Your task to perform on an android device: turn pop-ups on in chrome Image 0: 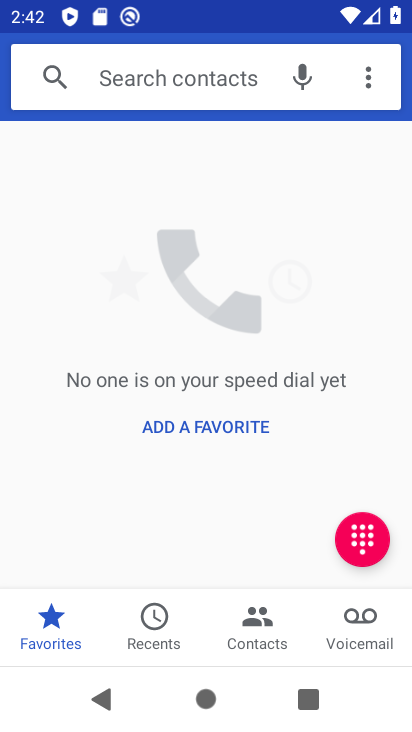
Step 0: press back button
Your task to perform on an android device: turn pop-ups on in chrome Image 1: 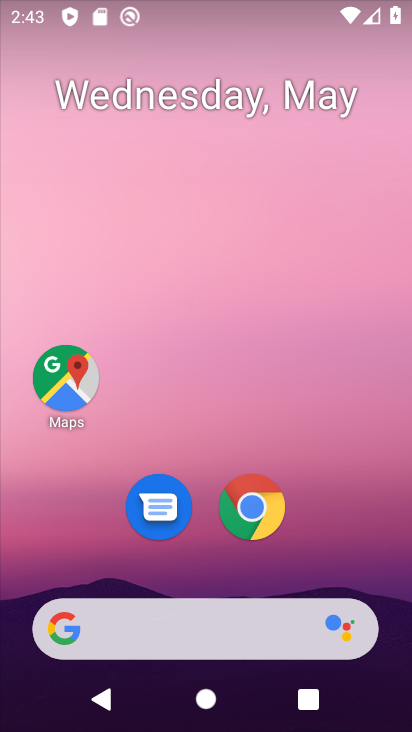
Step 1: drag from (346, 531) to (251, 18)
Your task to perform on an android device: turn pop-ups on in chrome Image 2: 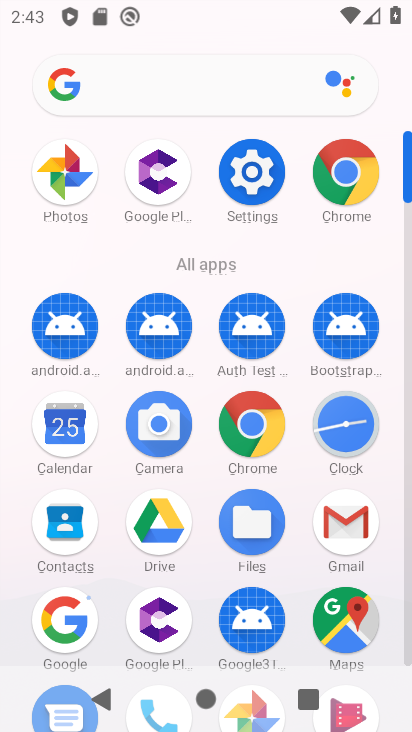
Step 2: drag from (12, 630) to (15, 301)
Your task to perform on an android device: turn pop-ups on in chrome Image 3: 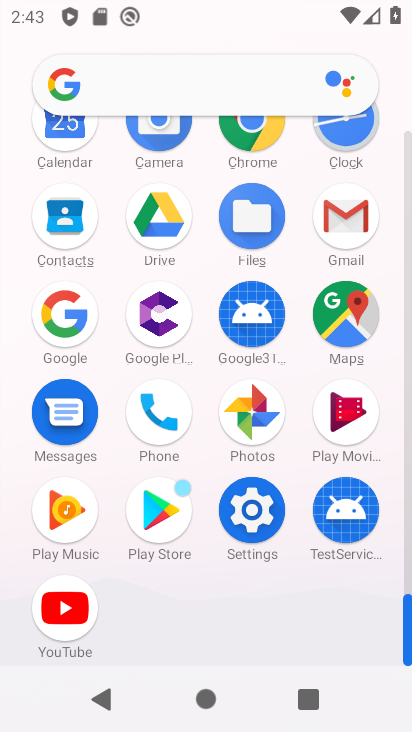
Step 3: click (249, 121)
Your task to perform on an android device: turn pop-ups on in chrome Image 4: 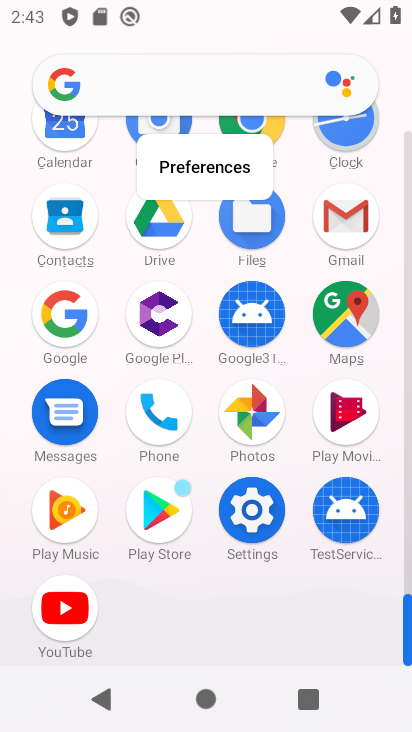
Step 4: drag from (9, 212) to (7, 454)
Your task to perform on an android device: turn pop-ups on in chrome Image 5: 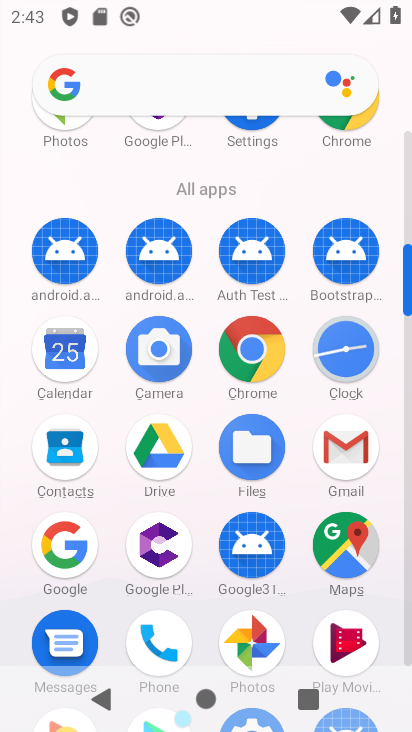
Step 5: click (252, 347)
Your task to perform on an android device: turn pop-ups on in chrome Image 6: 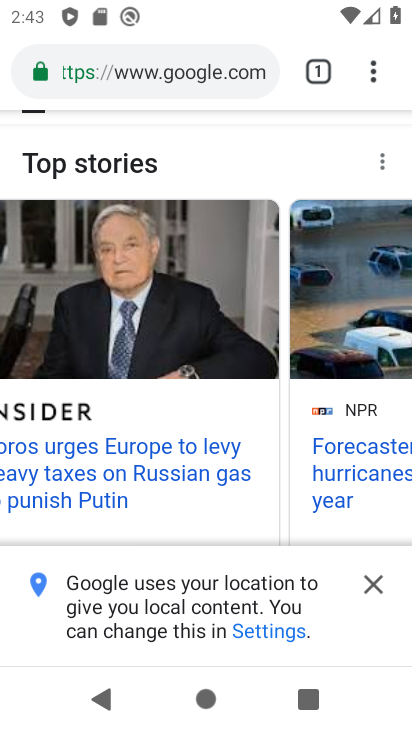
Step 6: drag from (372, 62) to (144, 493)
Your task to perform on an android device: turn pop-ups on in chrome Image 7: 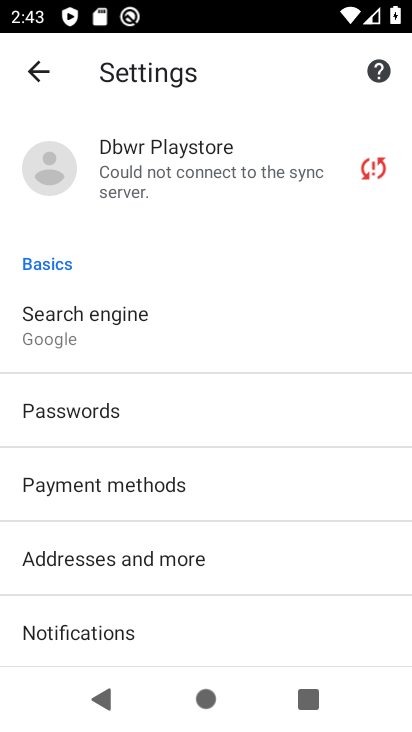
Step 7: drag from (274, 577) to (223, 139)
Your task to perform on an android device: turn pop-ups on in chrome Image 8: 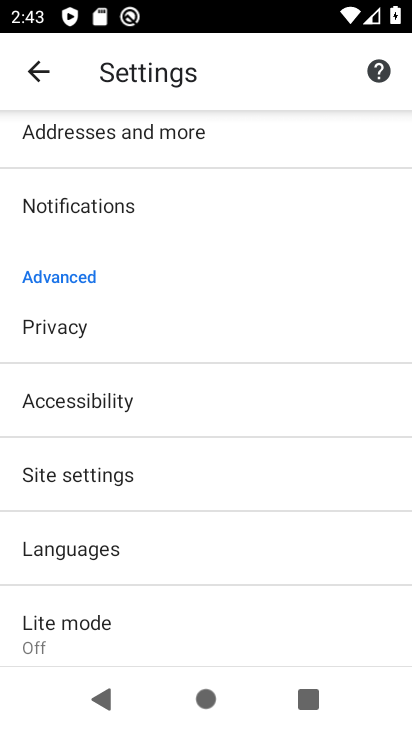
Step 8: drag from (259, 580) to (277, 171)
Your task to perform on an android device: turn pop-ups on in chrome Image 9: 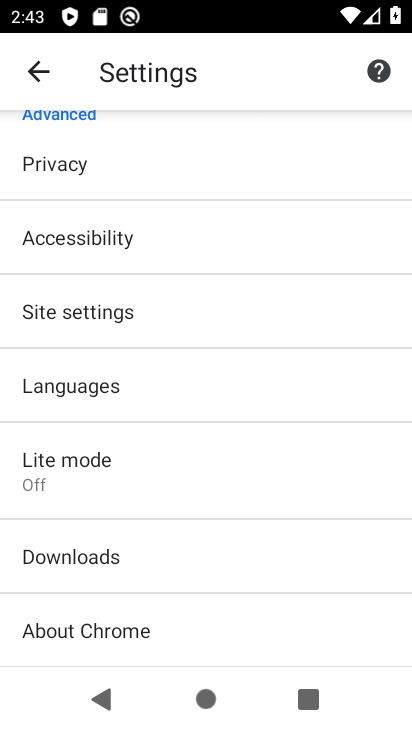
Step 9: click (105, 312)
Your task to perform on an android device: turn pop-ups on in chrome Image 10: 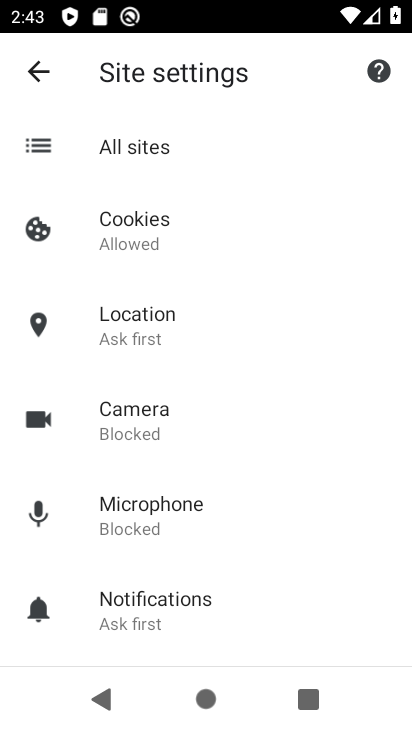
Step 10: drag from (236, 567) to (266, 206)
Your task to perform on an android device: turn pop-ups on in chrome Image 11: 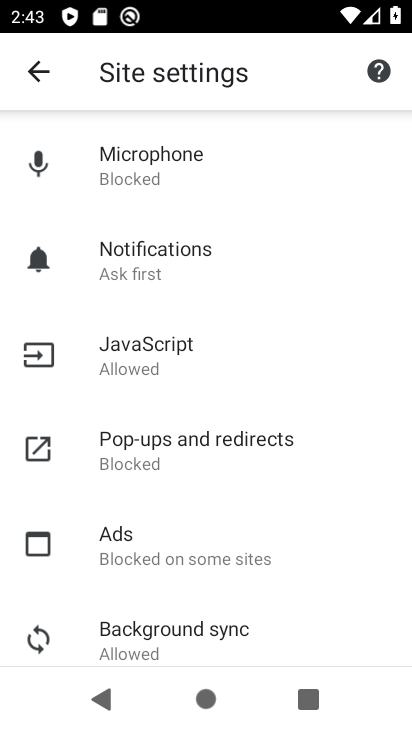
Step 11: click (184, 446)
Your task to perform on an android device: turn pop-ups on in chrome Image 12: 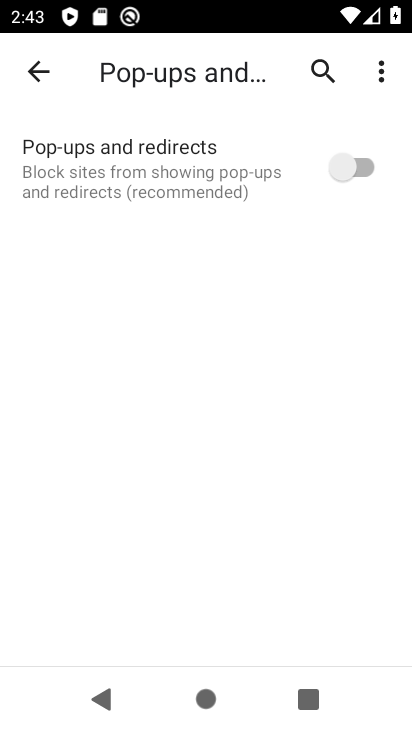
Step 12: click (349, 158)
Your task to perform on an android device: turn pop-ups on in chrome Image 13: 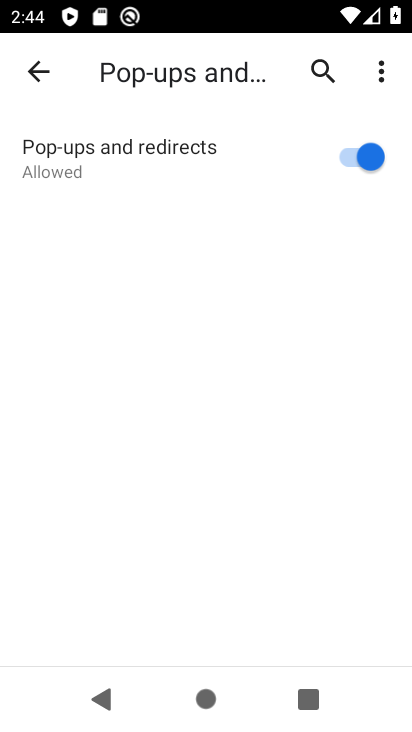
Step 13: click (37, 75)
Your task to perform on an android device: turn pop-ups on in chrome Image 14: 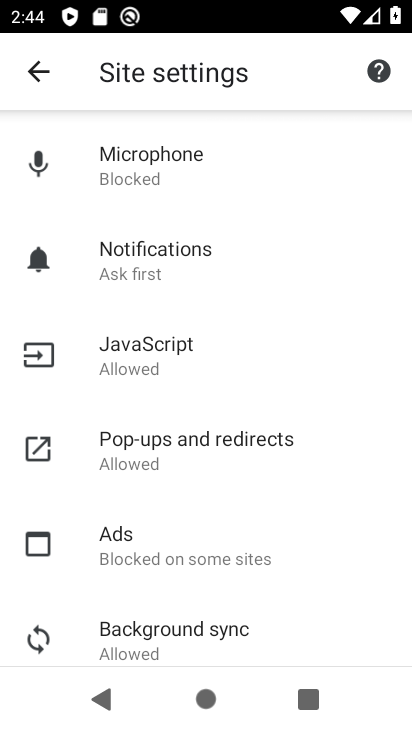
Step 14: task complete